Your task to perform on an android device: When is my next meeting? Image 0: 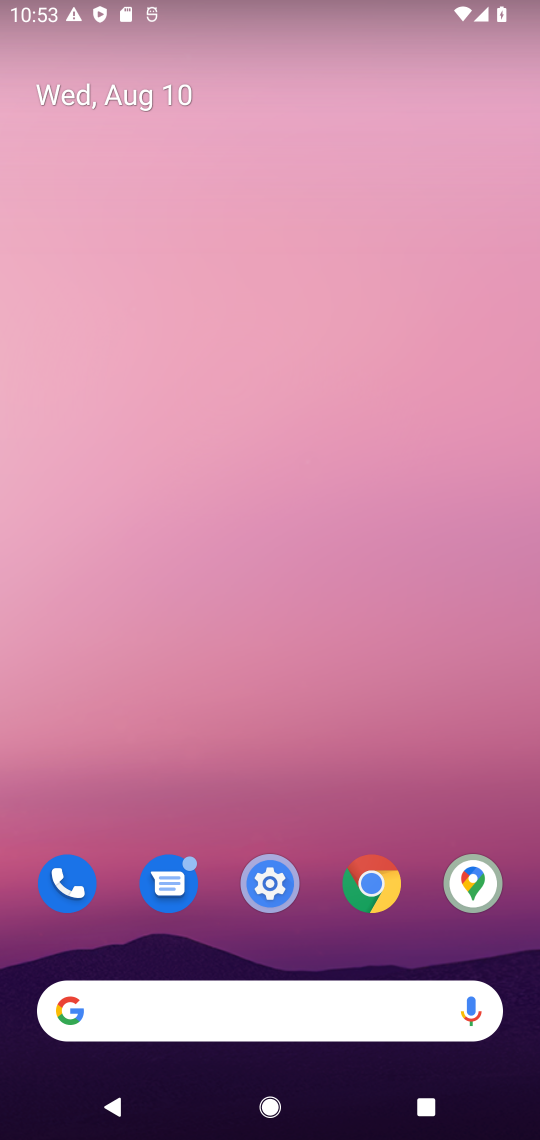
Step 0: drag from (390, 336) to (433, 0)
Your task to perform on an android device: When is my next meeting? Image 1: 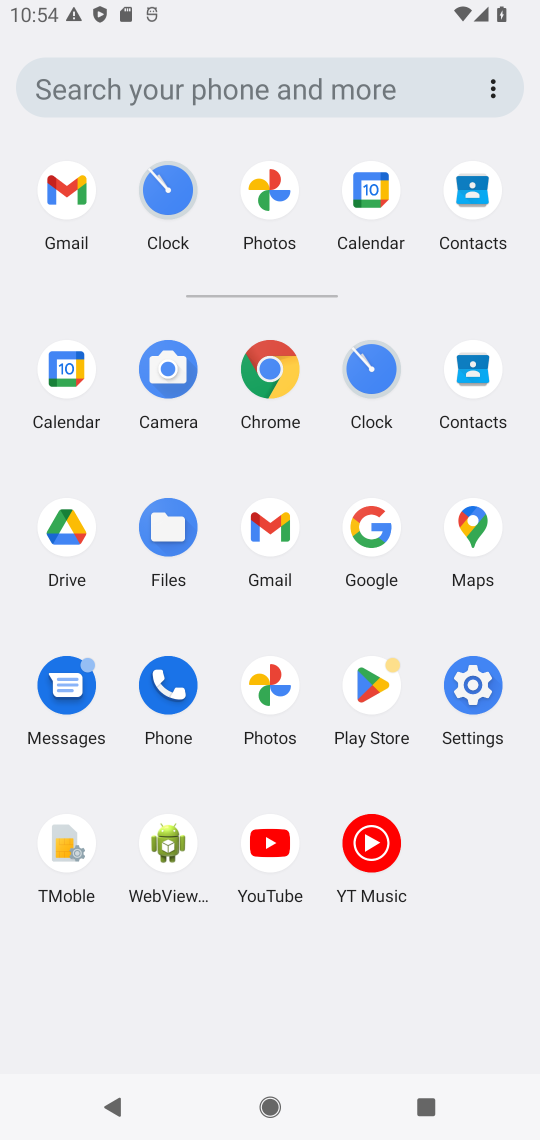
Step 1: click (376, 176)
Your task to perform on an android device: When is my next meeting? Image 2: 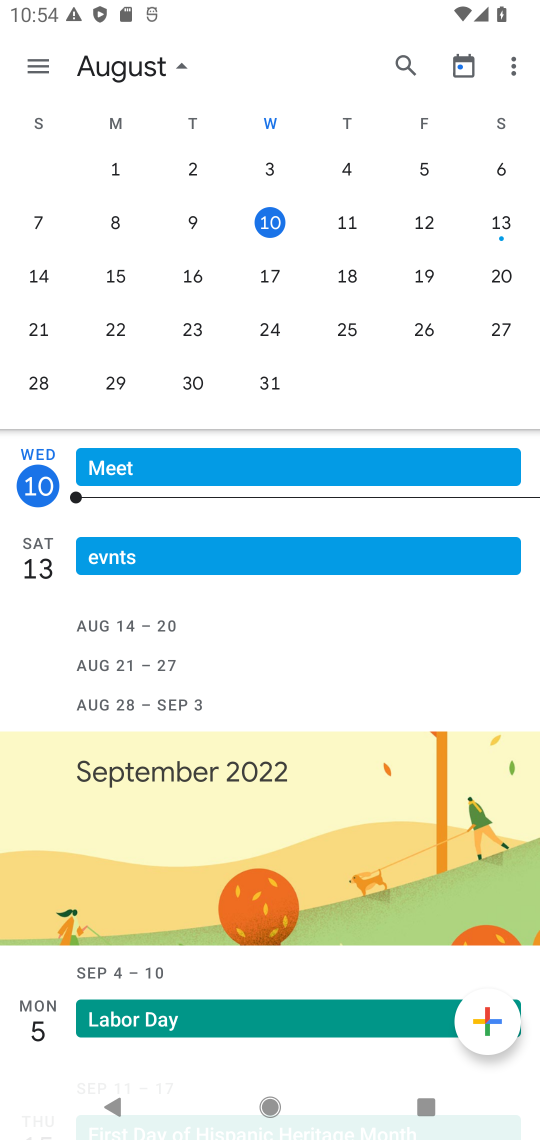
Step 2: click (274, 226)
Your task to perform on an android device: When is my next meeting? Image 3: 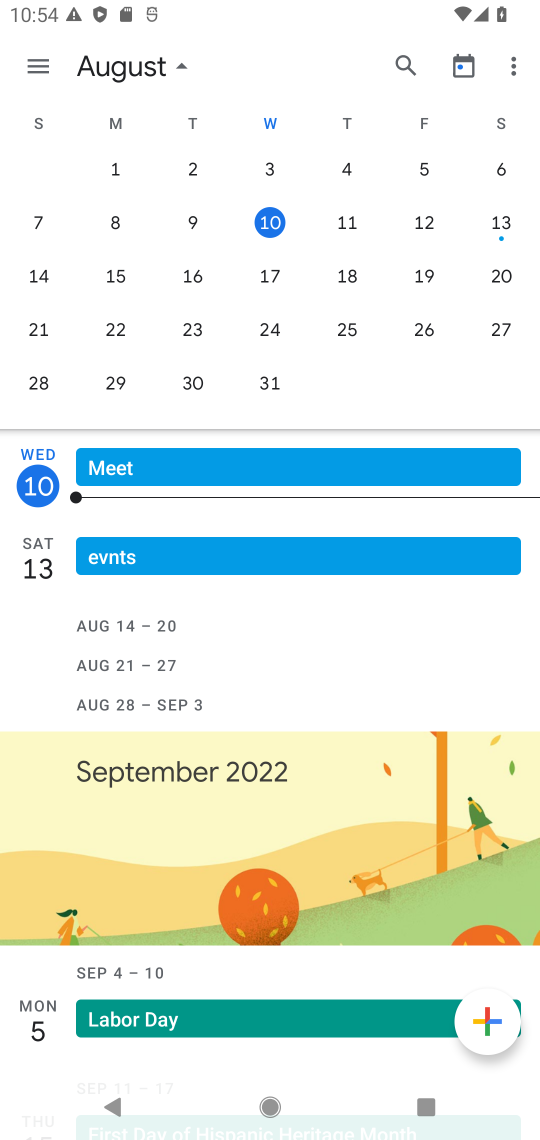
Step 3: task complete